Your task to perform on an android device: refresh tabs in the chrome app Image 0: 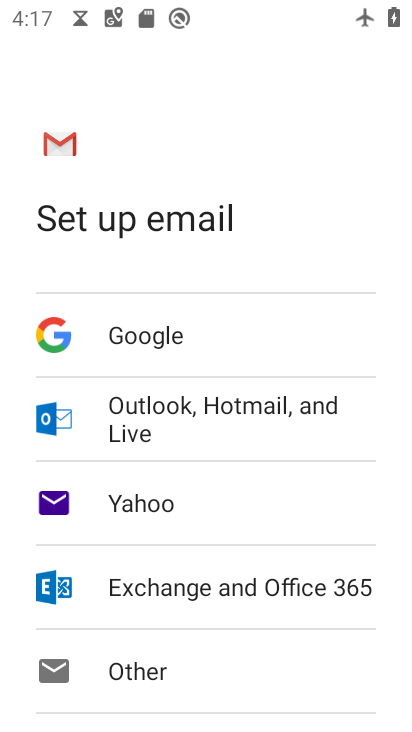
Step 0: press home button
Your task to perform on an android device: refresh tabs in the chrome app Image 1: 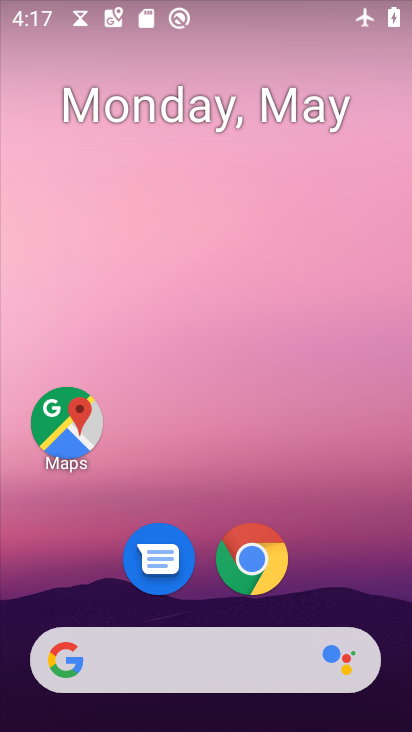
Step 1: click (266, 570)
Your task to perform on an android device: refresh tabs in the chrome app Image 2: 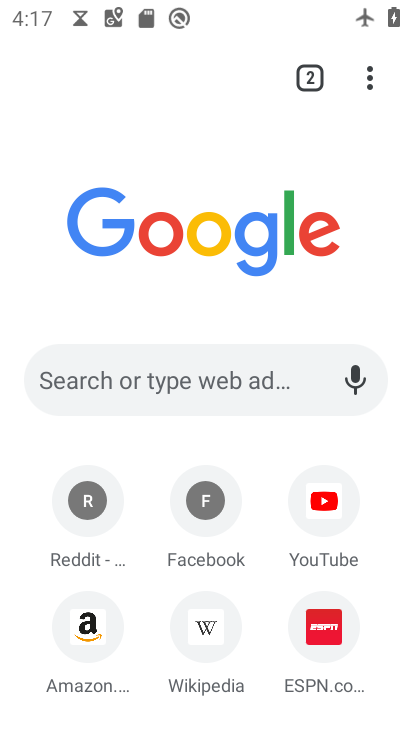
Step 2: click (372, 84)
Your task to perform on an android device: refresh tabs in the chrome app Image 3: 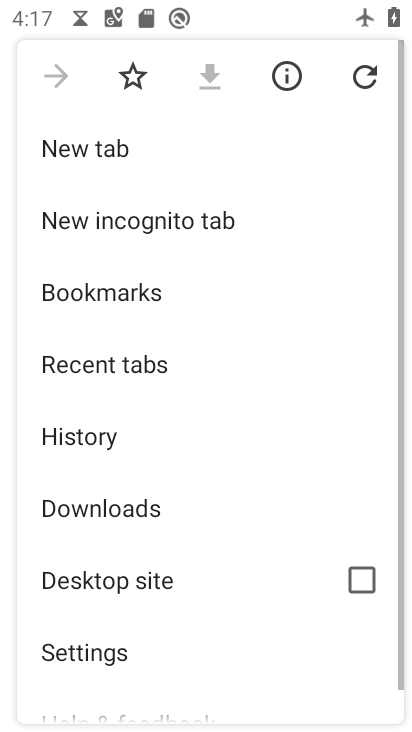
Step 3: click (372, 84)
Your task to perform on an android device: refresh tabs in the chrome app Image 4: 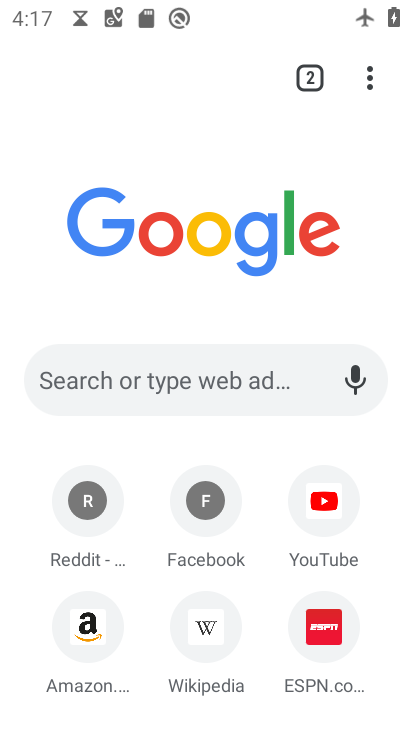
Step 4: task complete